Your task to perform on an android device: check battery use Image 0: 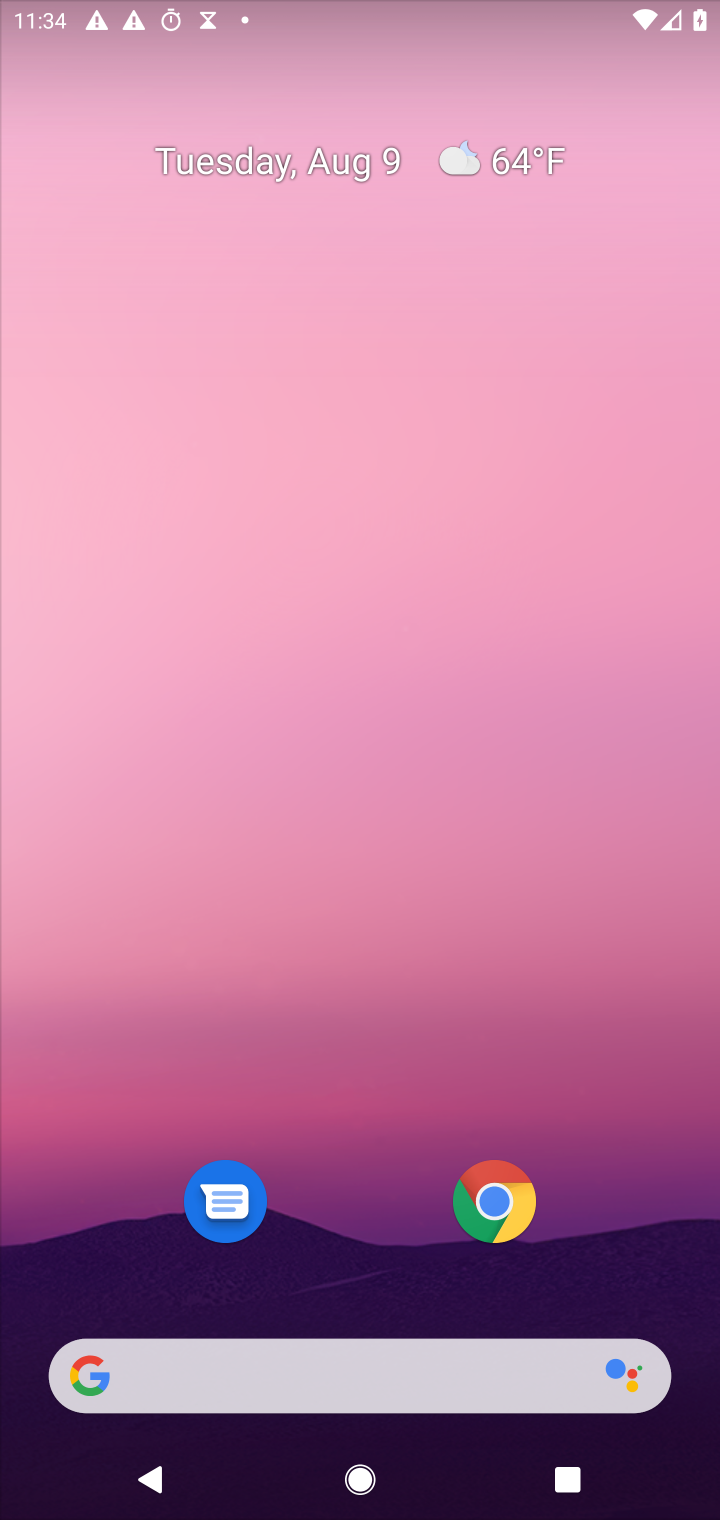
Step 0: press home button
Your task to perform on an android device: check battery use Image 1: 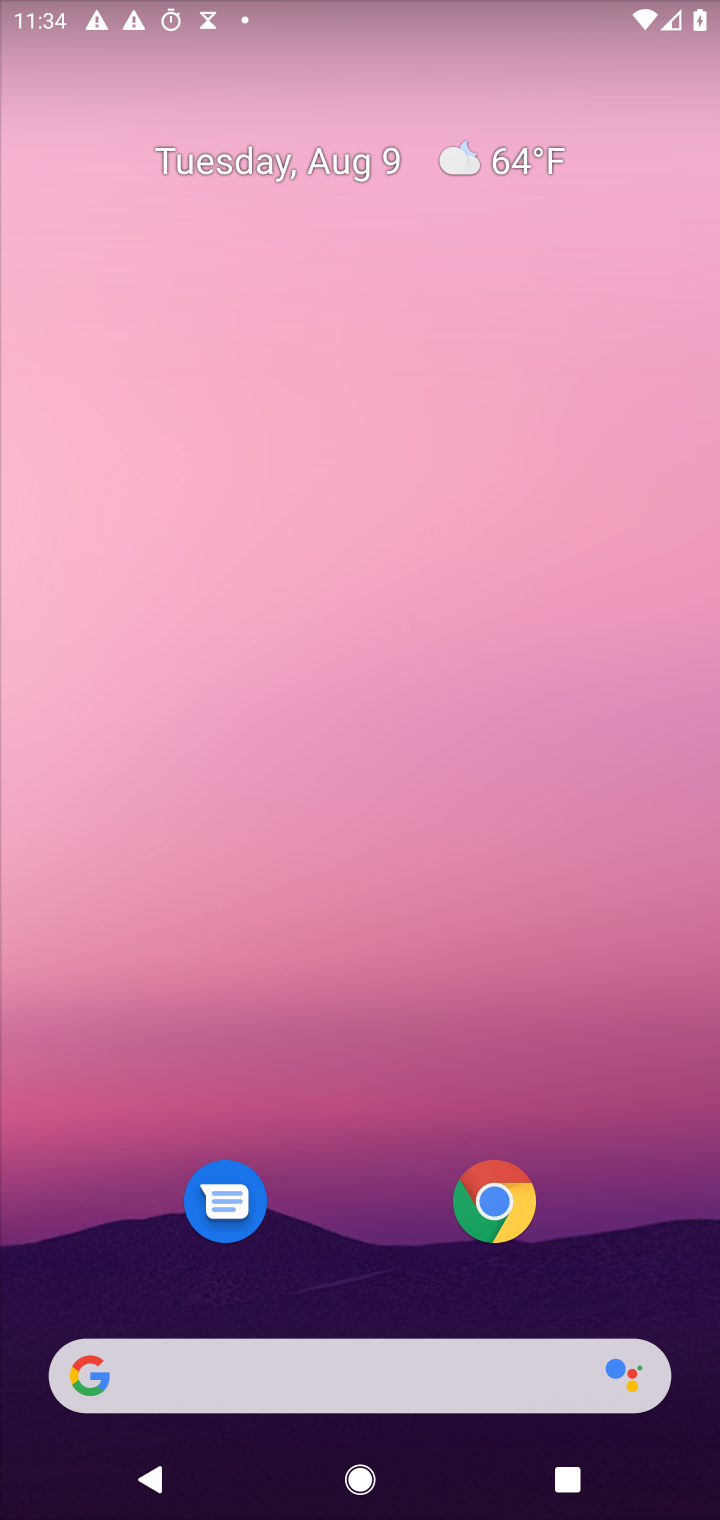
Step 1: press home button
Your task to perform on an android device: check battery use Image 2: 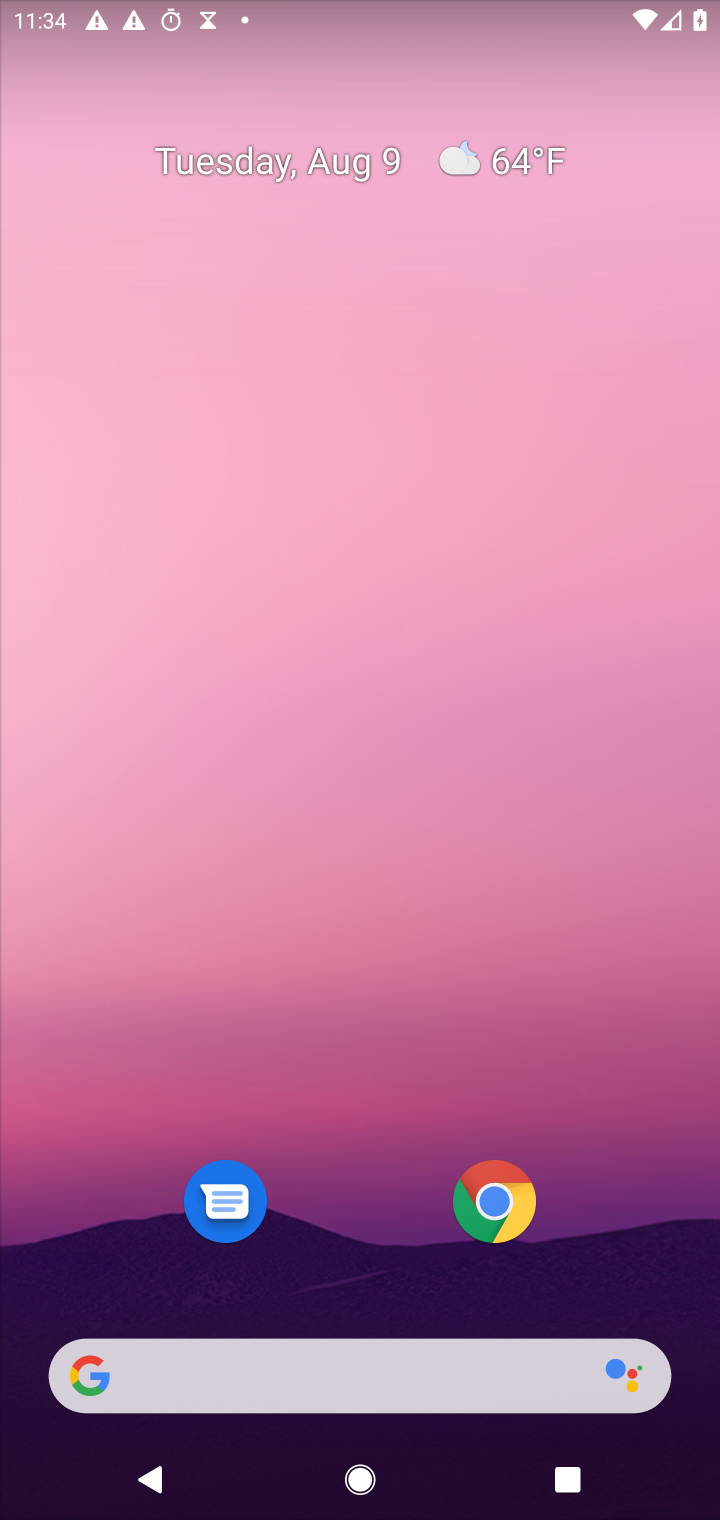
Step 2: drag from (470, 627) to (507, 96)
Your task to perform on an android device: check battery use Image 3: 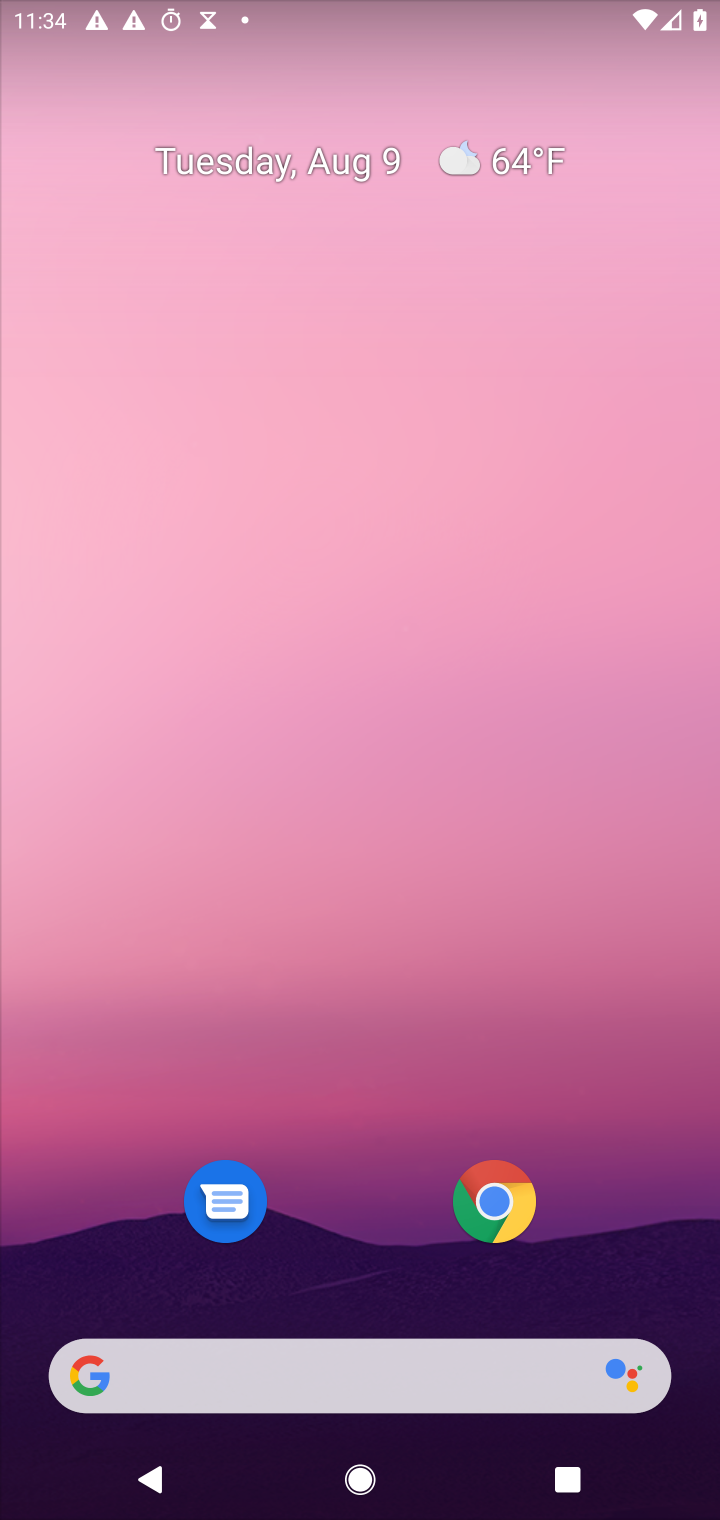
Step 3: drag from (397, 1119) to (355, 6)
Your task to perform on an android device: check battery use Image 4: 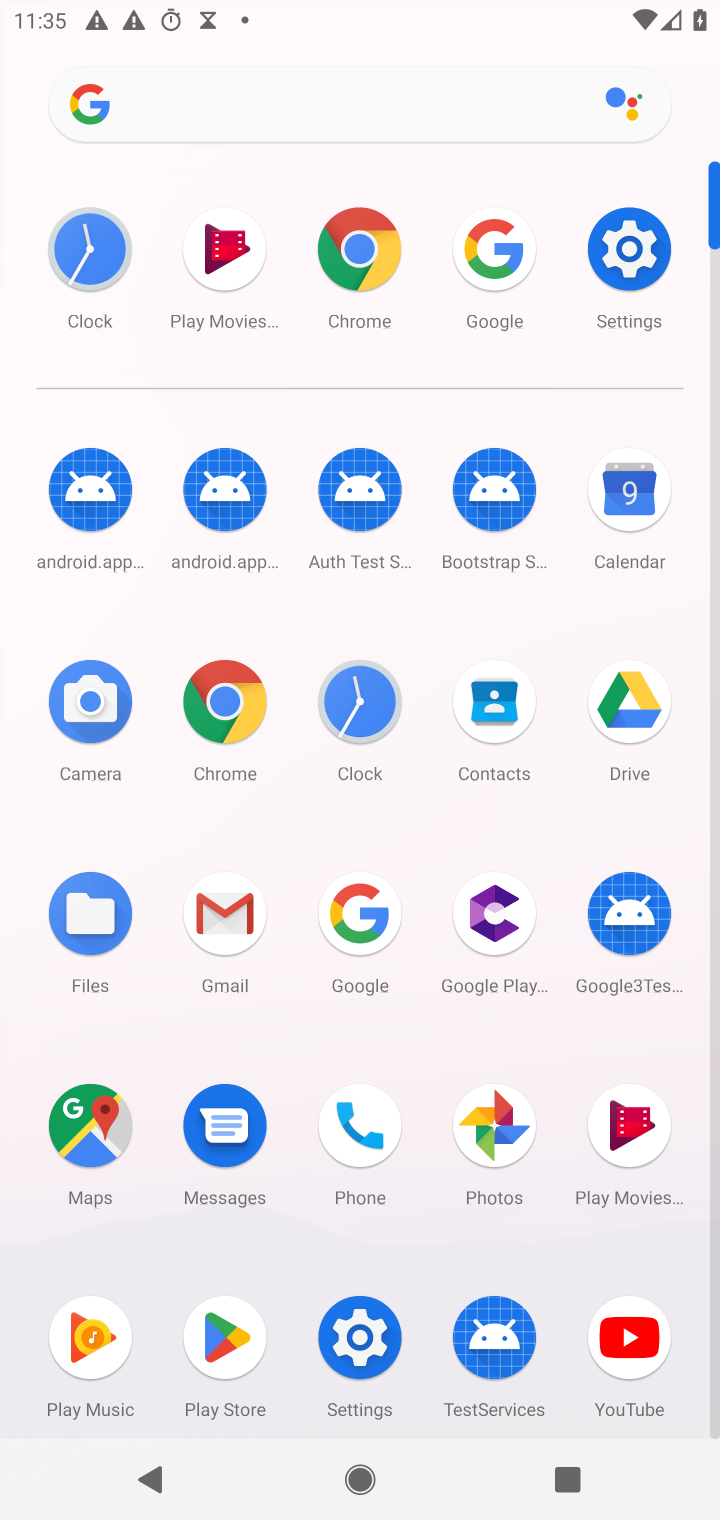
Step 4: click (623, 244)
Your task to perform on an android device: check battery use Image 5: 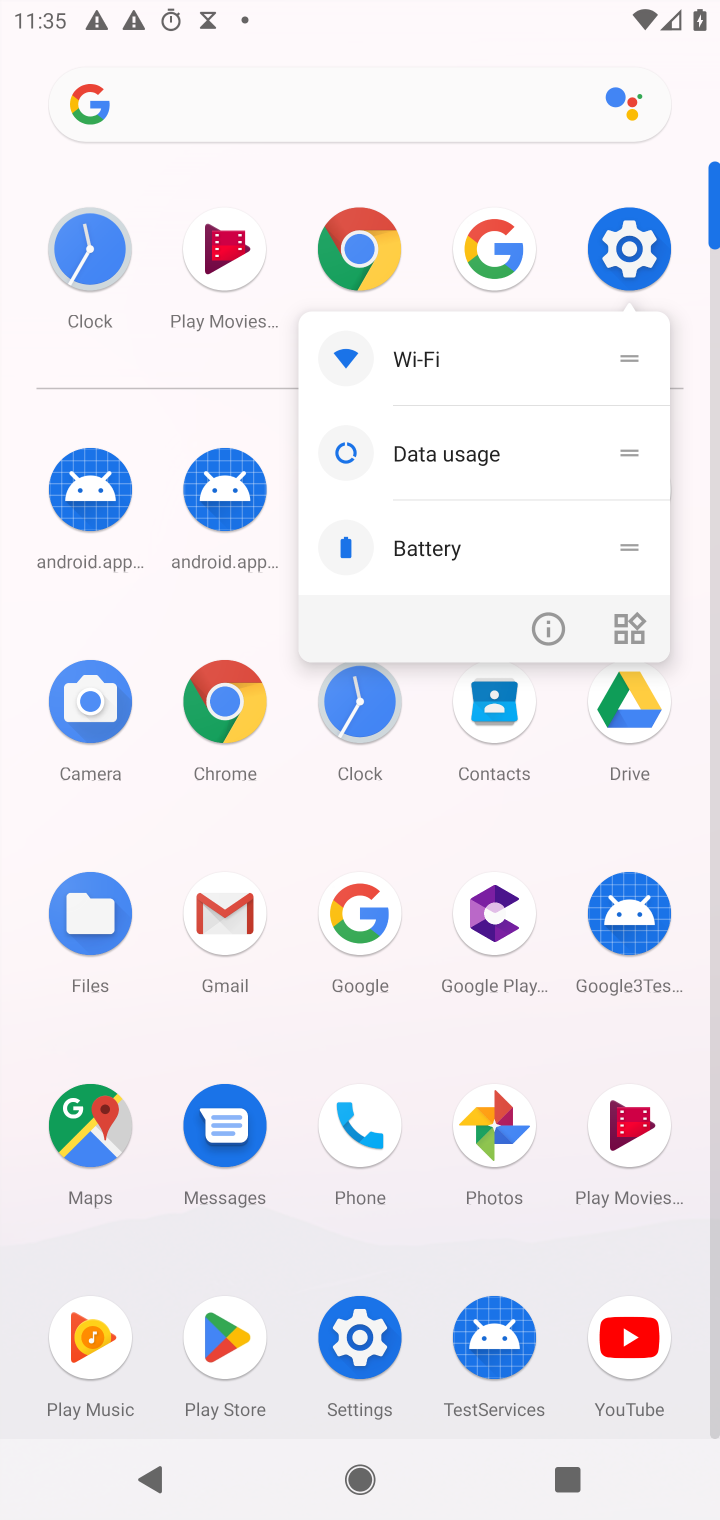
Step 5: click (619, 255)
Your task to perform on an android device: check battery use Image 6: 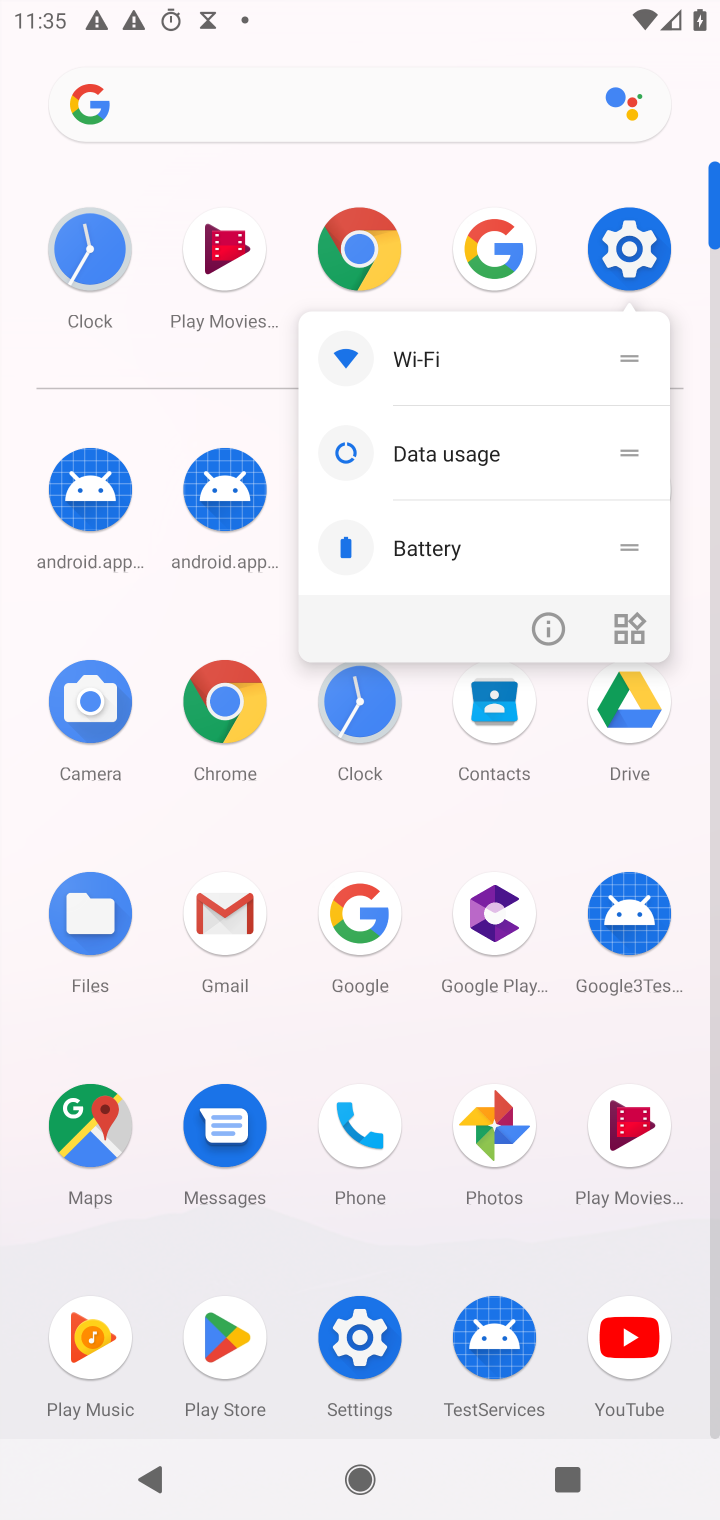
Step 6: click (619, 255)
Your task to perform on an android device: check battery use Image 7: 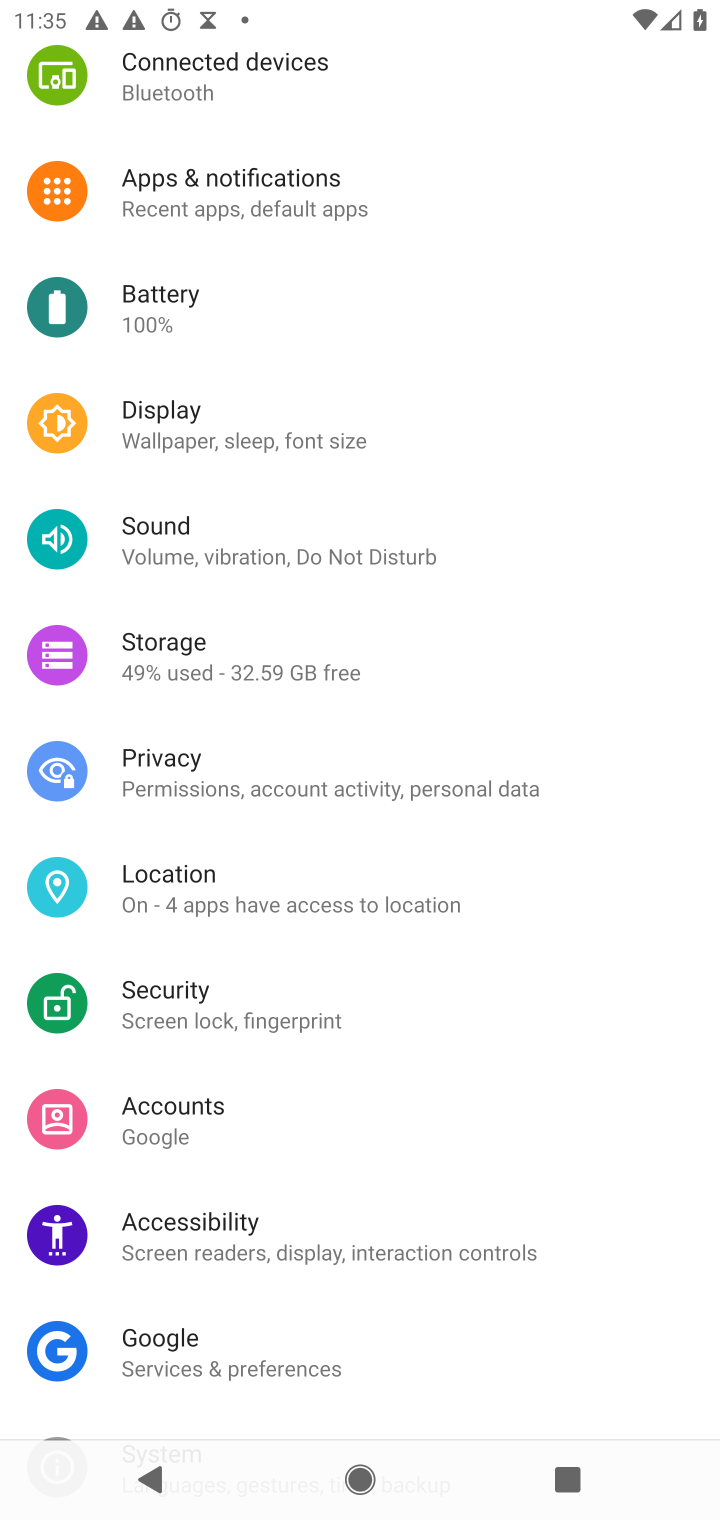
Step 7: click (175, 324)
Your task to perform on an android device: check battery use Image 8: 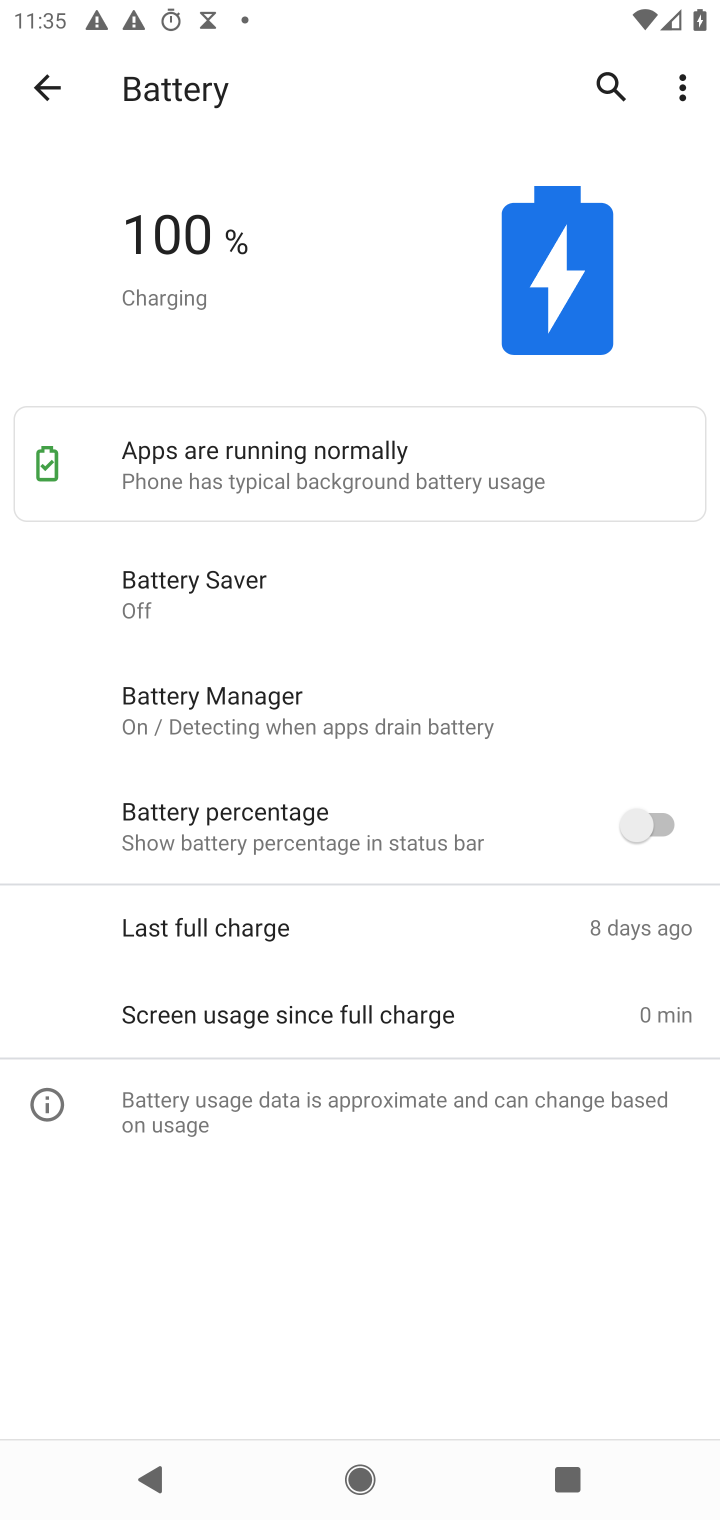
Step 8: task complete